Your task to perform on an android device: install app "Facebook" Image 0: 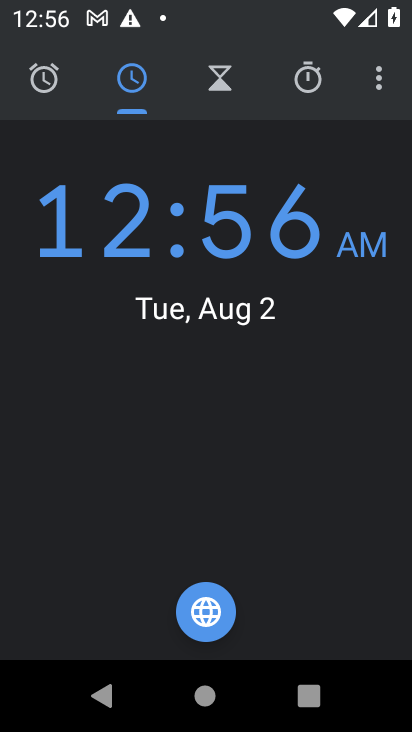
Step 0: press home button
Your task to perform on an android device: install app "Facebook" Image 1: 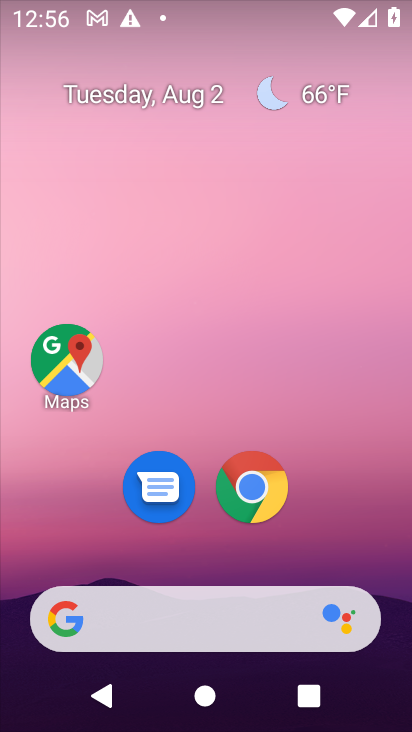
Step 1: drag from (164, 512) to (141, 137)
Your task to perform on an android device: install app "Facebook" Image 2: 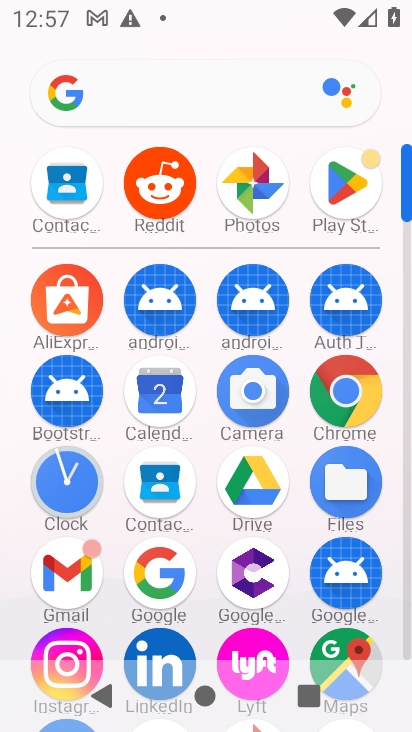
Step 2: click (345, 205)
Your task to perform on an android device: install app "Facebook" Image 3: 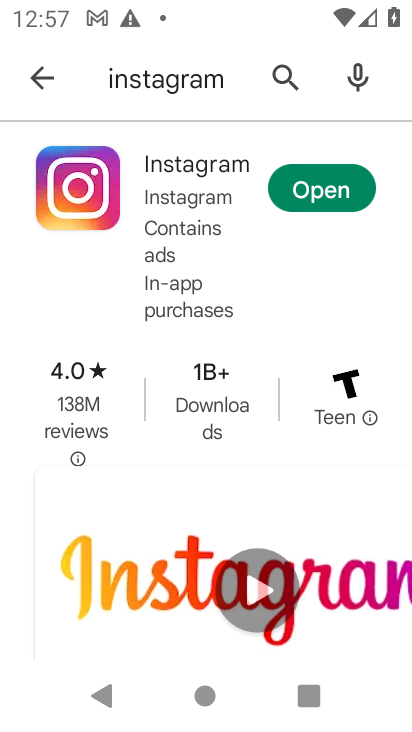
Step 3: click (37, 83)
Your task to perform on an android device: install app "Facebook" Image 4: 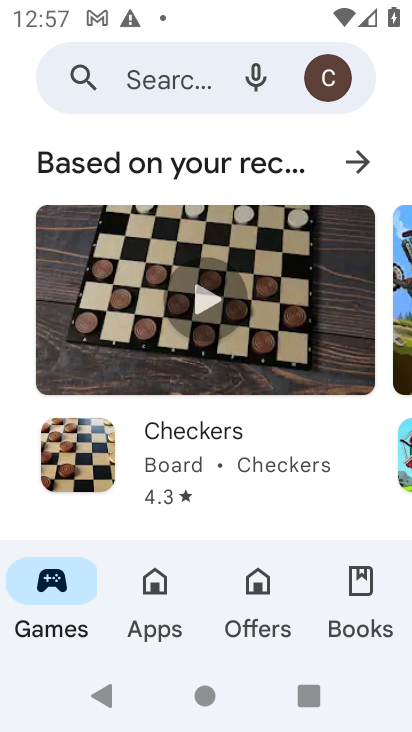
Step 4: click (106, 77)
Your task to perform on an android device: install app "Facebook" Image 5: 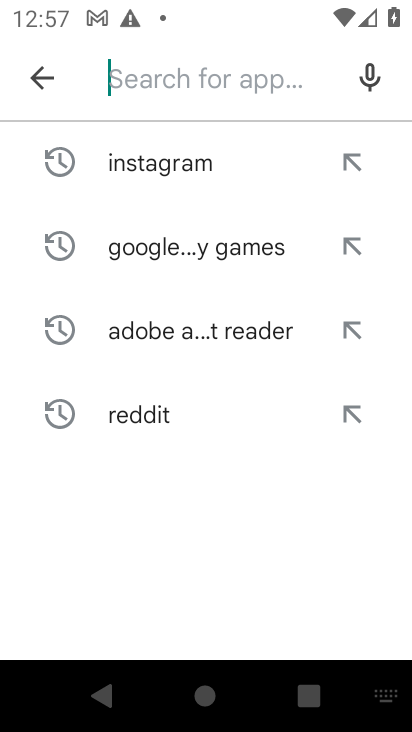
Step 5: type "Facebook"
Your task to perform on an android device: install app "Facebook" Image 6: 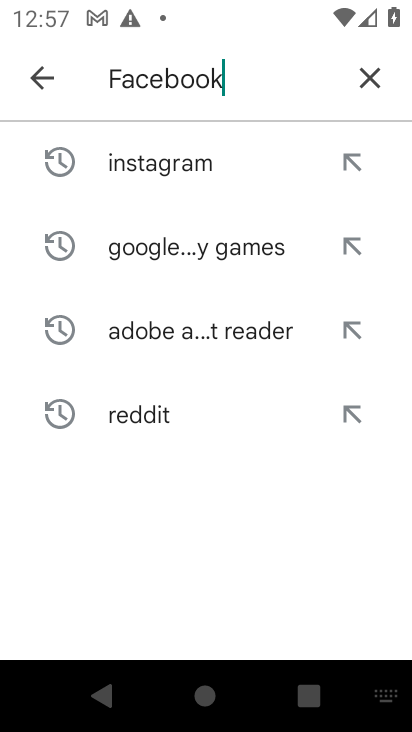
Step 6: type ""
Your task to perform on an android device: install app "Facebook" Image 7: 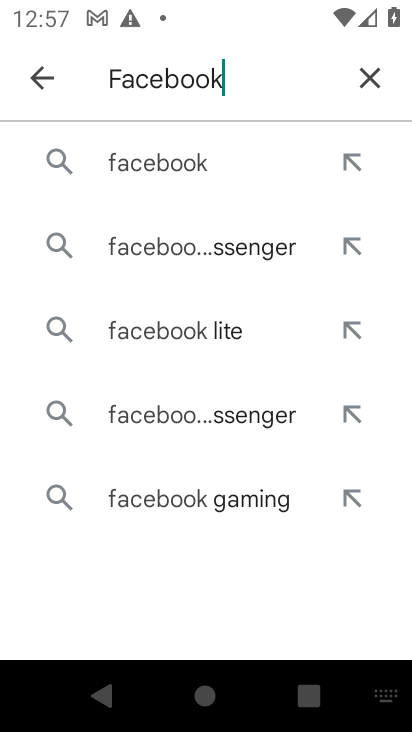
Step 7: click (226, 171)
Your task to perform on an android device: install app "Facebook" Image 8: 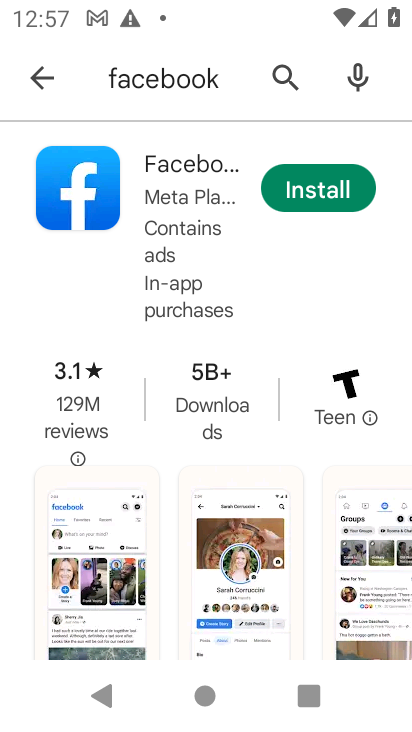
Step 8: click (296, 195)
Your task to perform on an android device: install app "Facebook" Image 9: 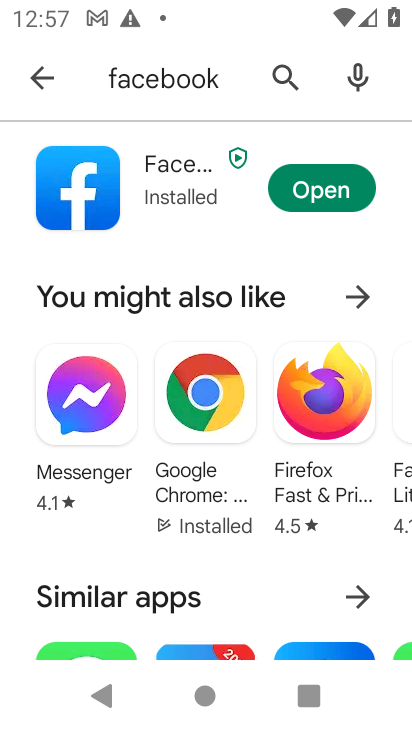
Step 9: task complete